Your task to perform on an android device: create a new album in the google photos Image 0: 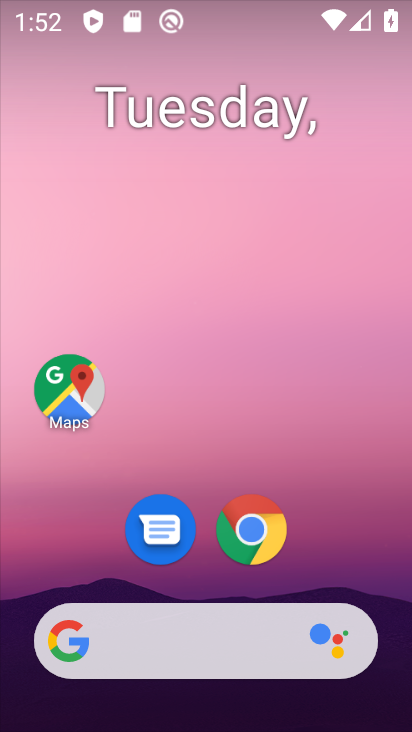
Step 0: drag from (386, 574) to (259, 90)
Your task to perform on an android device: create a new album in the google photos Image 1: 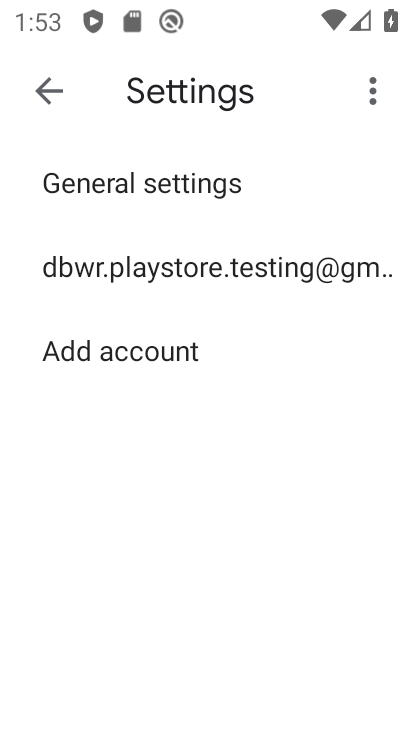
Step 1: press home button
Your task to perform on an android device: create a new album in the google photos Image 2: 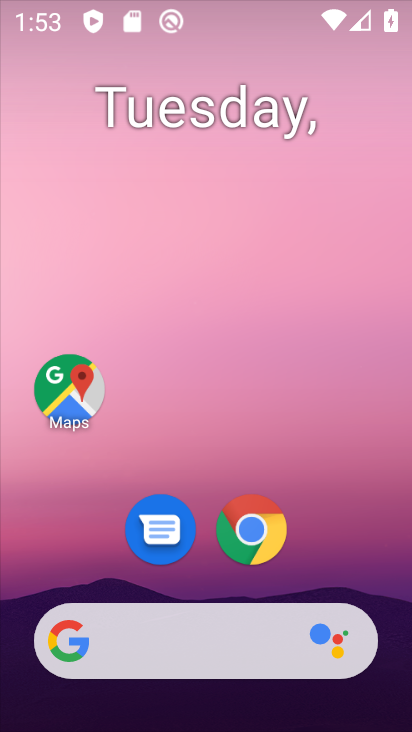
Step 2: drag from (390, 660) to (240, 65)
Your task to perform on an android device: create a new album in the google photos Image 3: 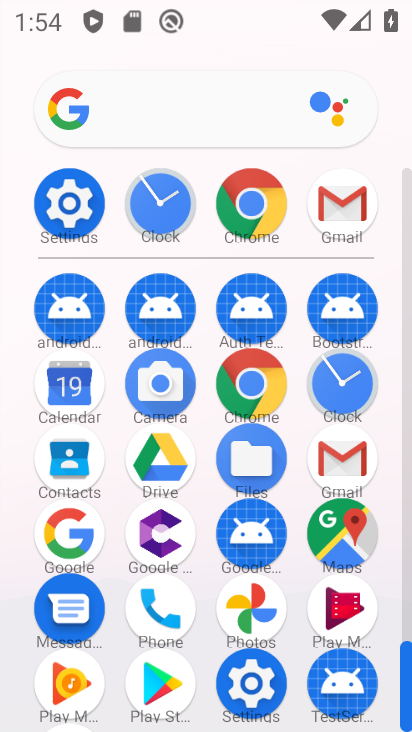
Step 3: click (259, 616)
Your task to perform on an android device: create a new album in the google photos Image 4: 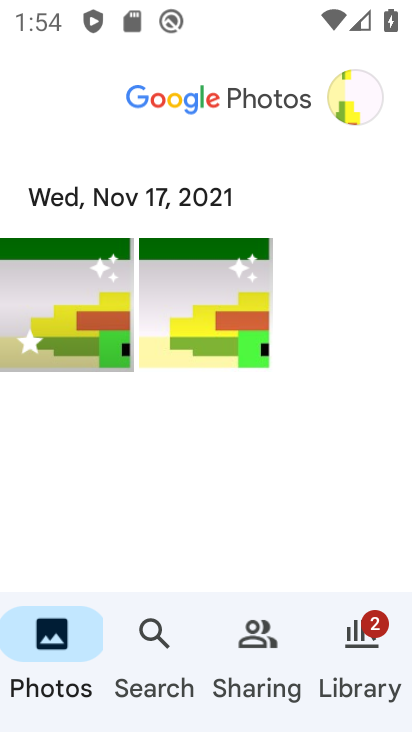
Step 4: click (59, 263)
Your task to perform on an android device: create a new album in the google photos Image 5: 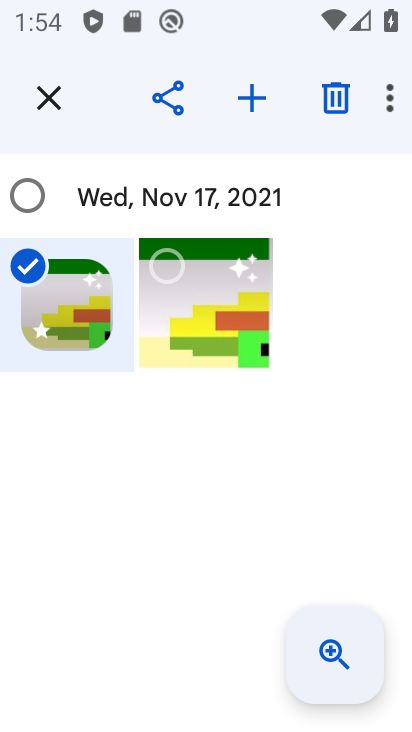
Step 5: click (260, 99)
Your task to perform on an android device: create a new album in the google photos Image 6: 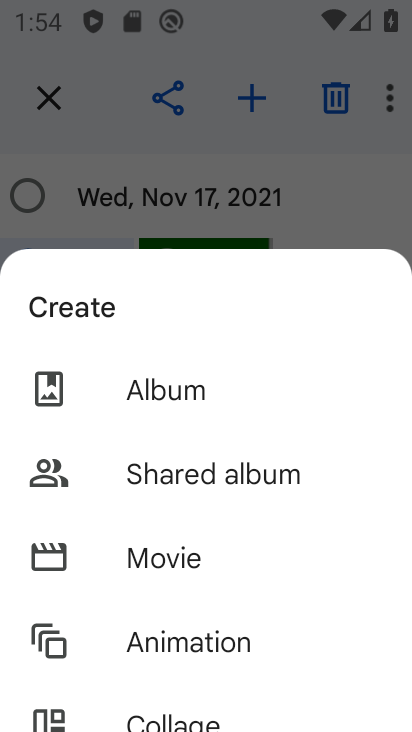
Step 6: click (190, 393)
Your task to perform on an android device: create a new album in the google photos Image 7: 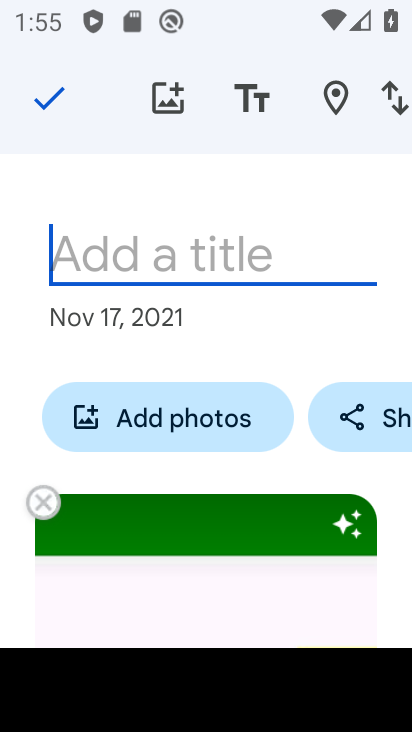
Step 7: type "MN"
Your task to perform on an android device: create a new album in the google photos Image 8: 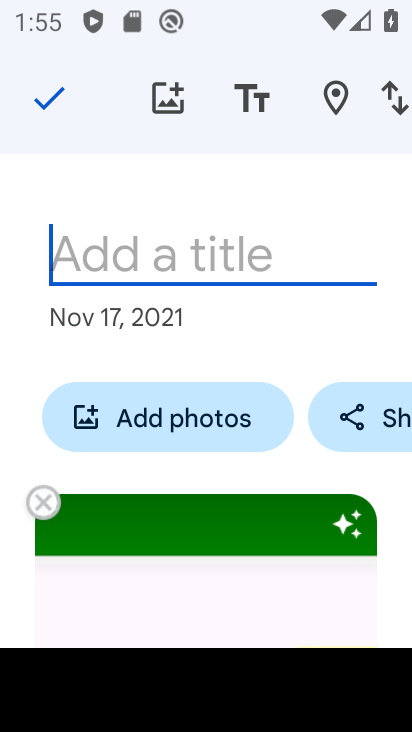
Step 8: click (34, 83)
Your task to perform on an android device: create a new album in the google photos Image 9: 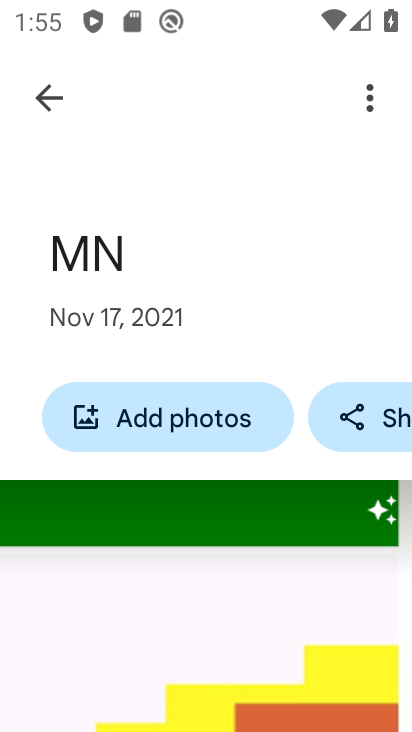
Step 9: task complete